Your task to perform on an android device: empty trash in google photos Image 0: 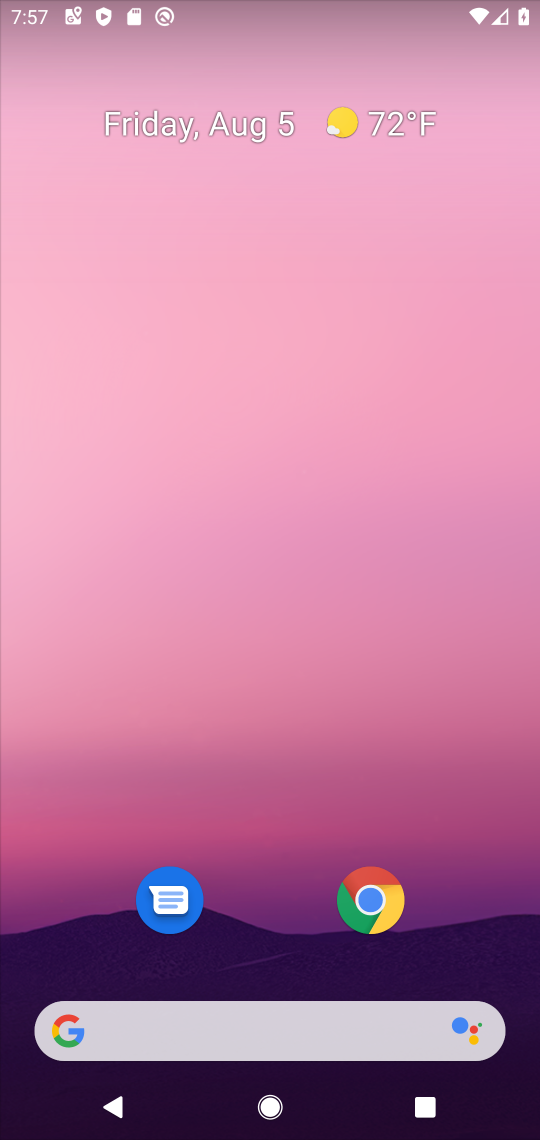
Step 0: drag from (237, 961) to (273, 545)
Your task to perform on an android device: empty trash in google photos Image 1: 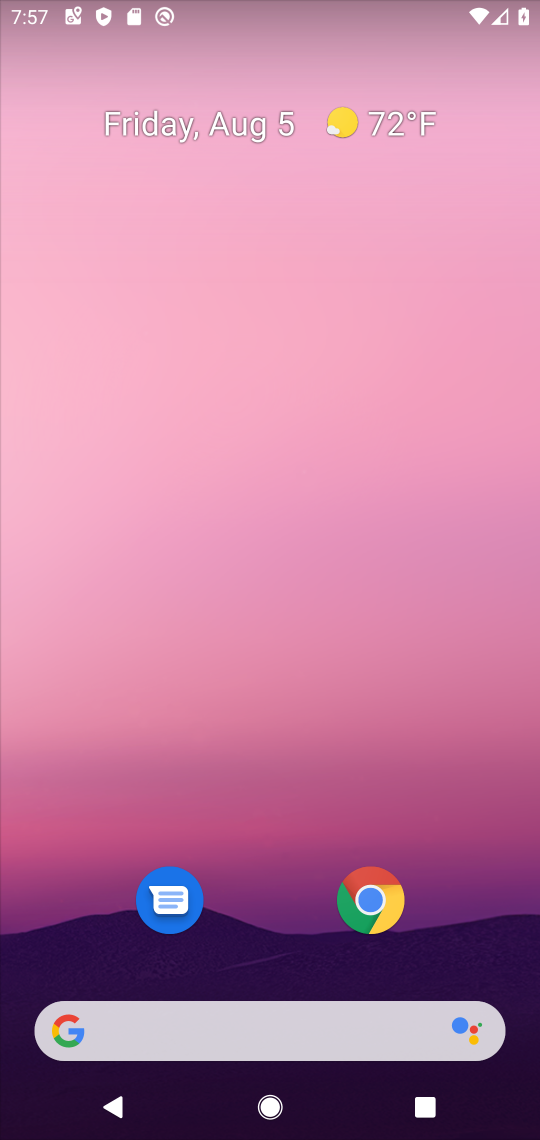
Step 1: drag from (306, 1052) to (359, 333)
Your task to perform on an android device: empty trash in google photos Image 2: 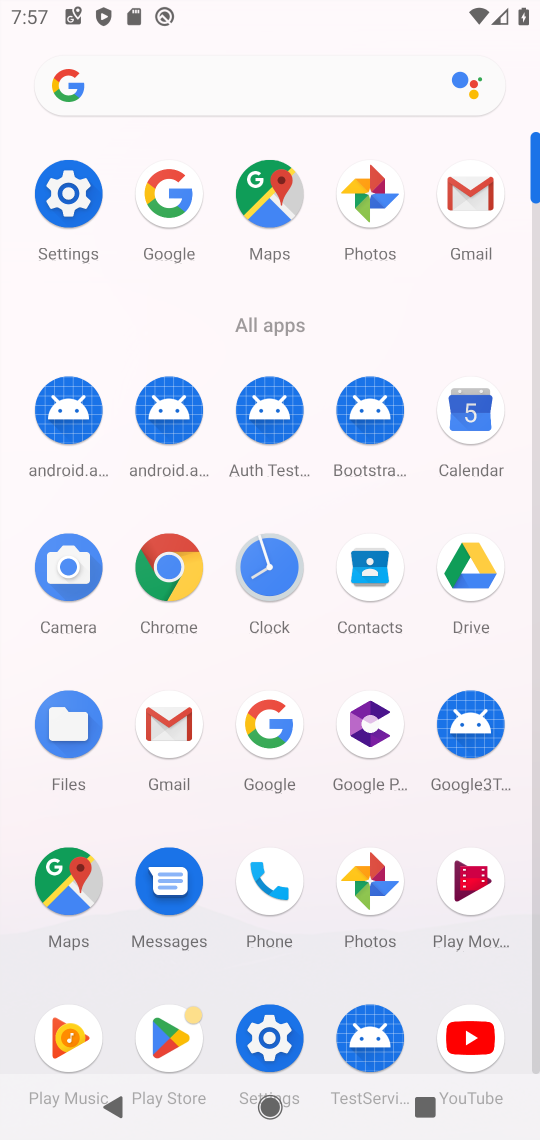
Step 2: click (361, 213)
Your task to perform on an android device: empty trash in google photos Image 3: 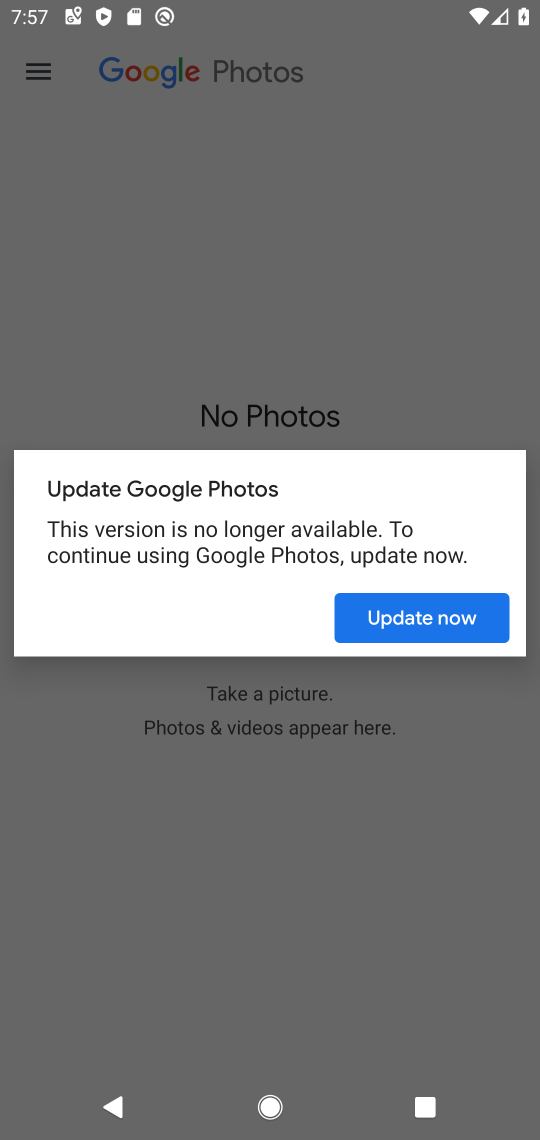
Step 3: click (422, 616)
Your task to perform on an android device: empty trash in google photos Image 4: 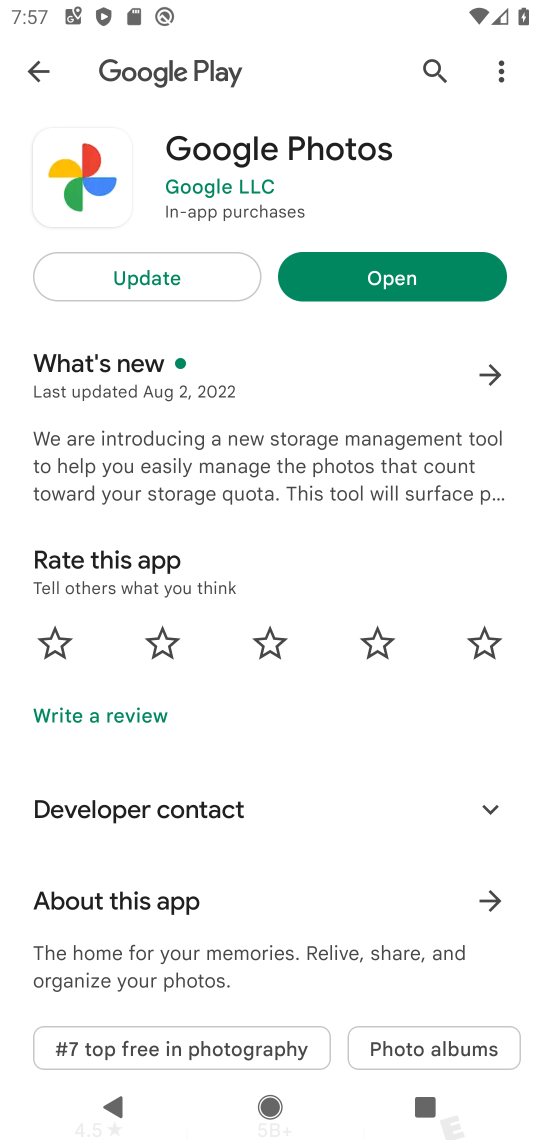
Step 4: click (96, 277)
Your task to perform on an android device: empty trash in google photos Image 5: 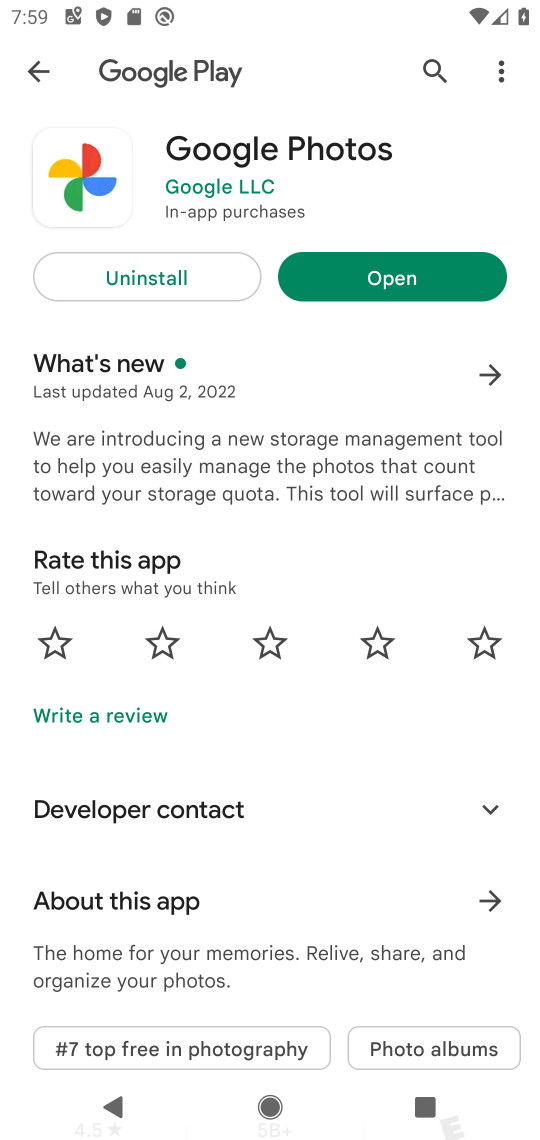
Step 5: click (335, 271)
Your task to perform on an android device: empty trash in google photos Image 6: 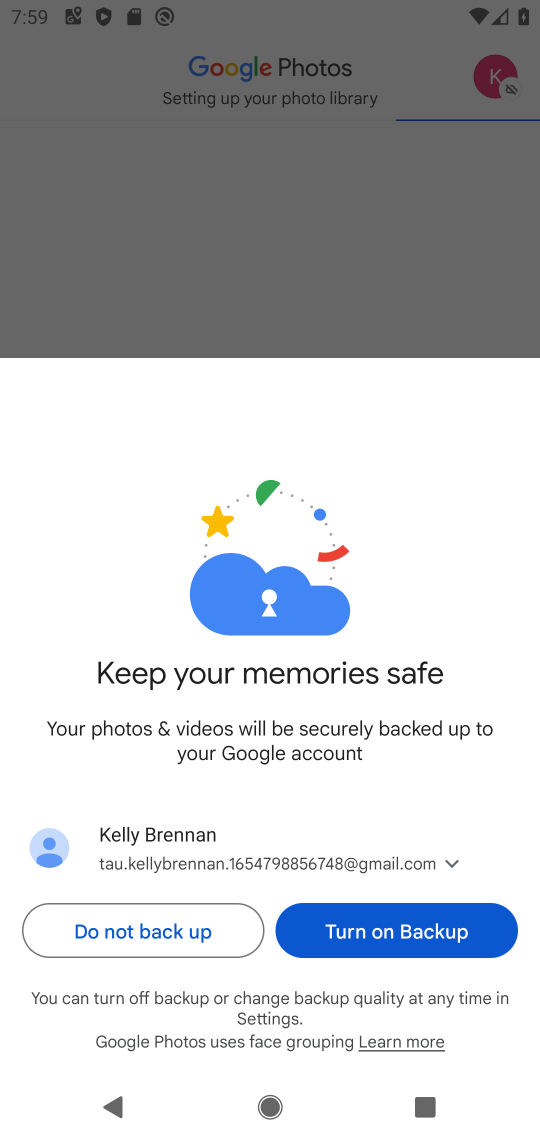
Step 6: click (377, 919)
Your task to perform on an android device: empty trash in google photos Image 7: 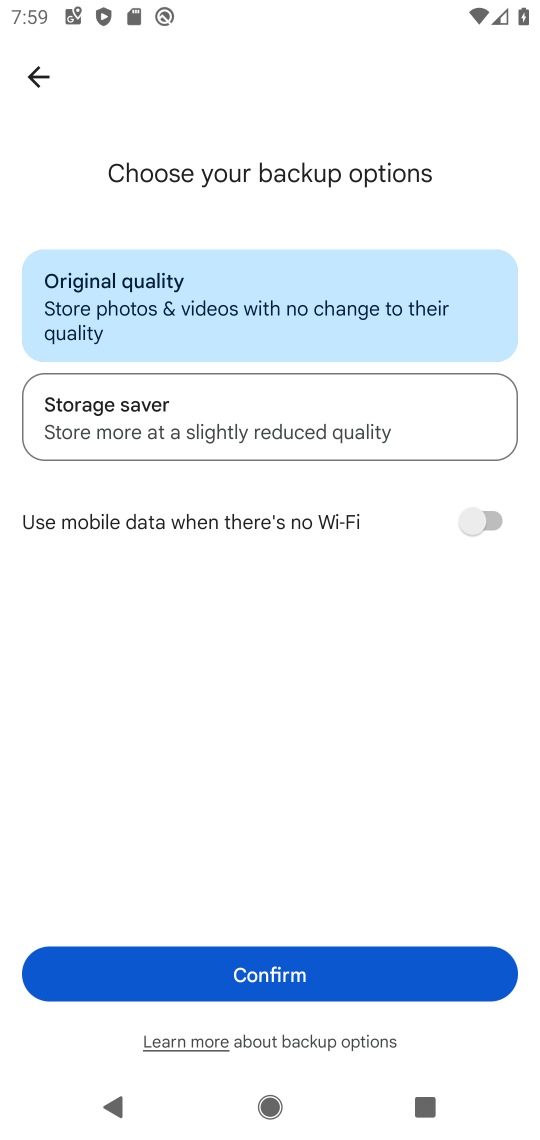
Step 7: click (259, 985)
Your task to perform on an android device: empty trash in google photos Image 8: 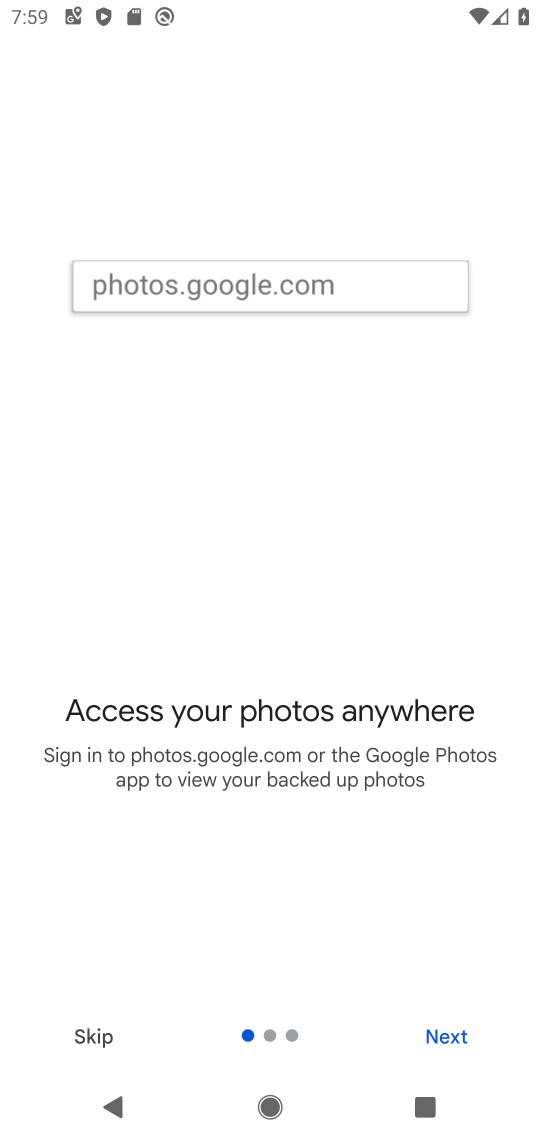
Step 8: click (476, 1030)
Your task to perform on an android device: empty trash in google photos Image 9: 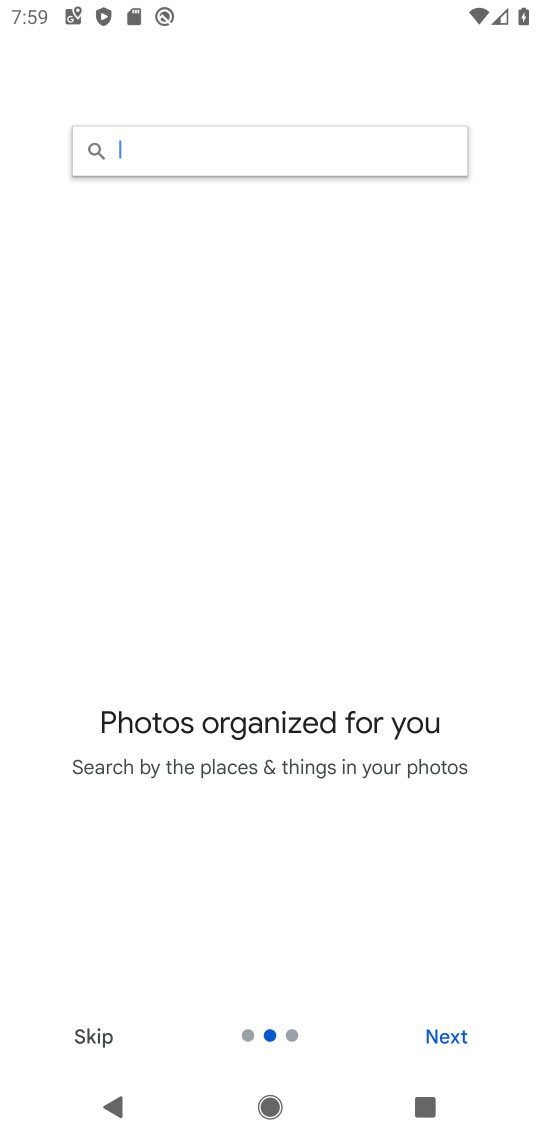
Step 9: click (476, 1030)
Your task to perform on an android device: empty trash in google photos Image 10: 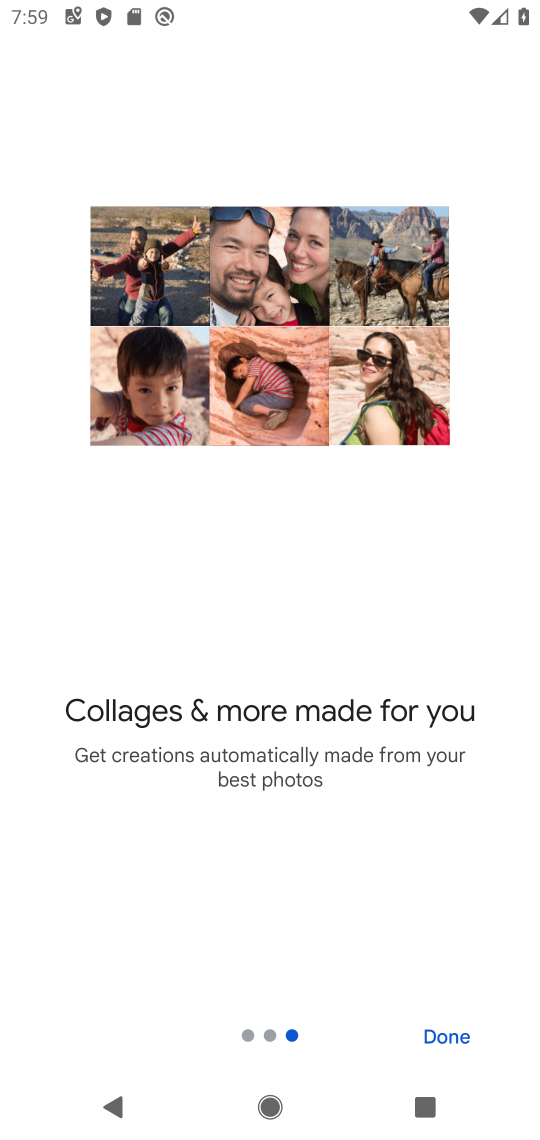
Step 10: click (476, 1030)
Your task to perform on an android device: empty trash in google photos Image 11: 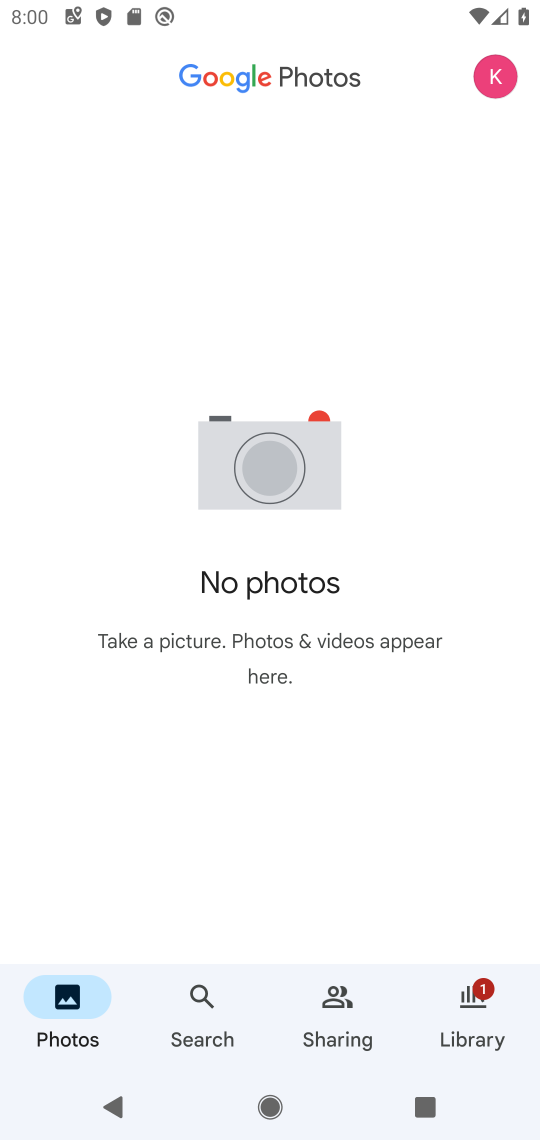
Step 11: click (486, 62)
Your task to perform on an android device: empty trash in google photos Image 12: 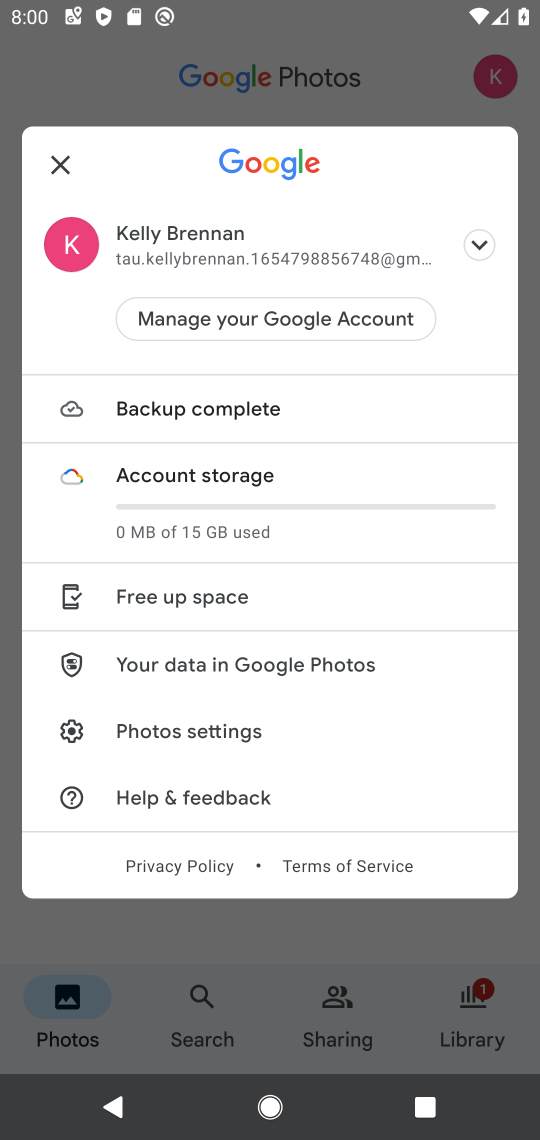
Step 12: click (197, 722)
Your task to perform on an android device: empty trash in google photos Image 13: 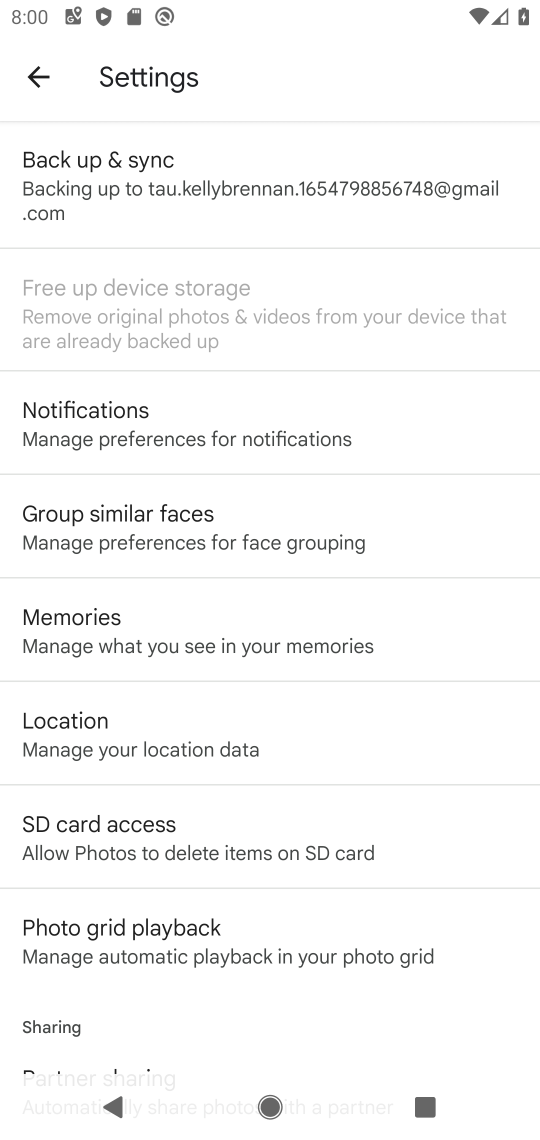
Step 13: task complete